Your task to perform on an android device: see sites visited before in the chrome app Image 0: 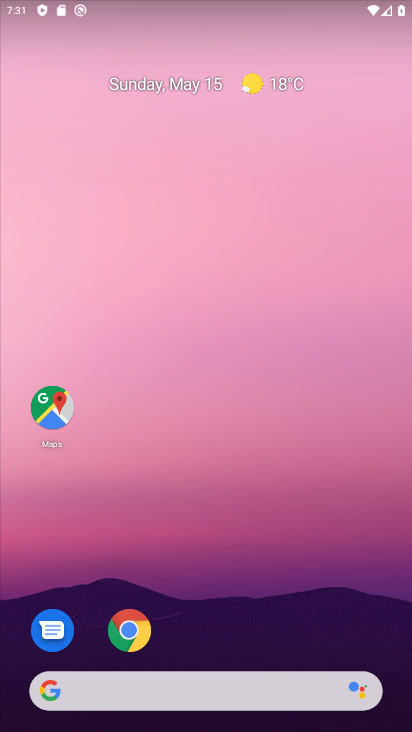
Step 0: drag from (202, 651) to (280, 72)
Your task to perform on an android device: see sites visited before in the chrome app Image 1: 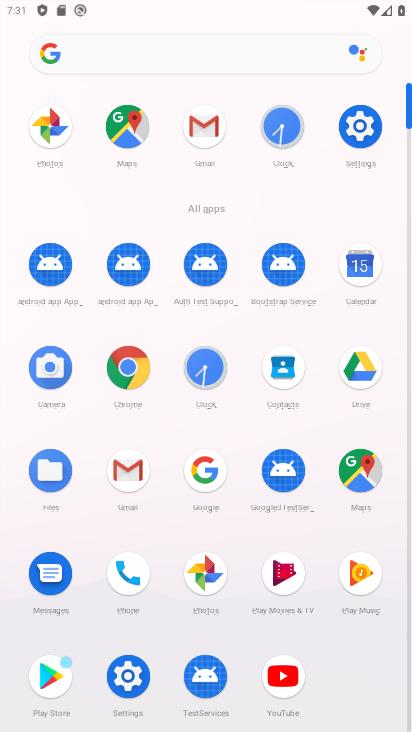
Step 1: click (118, 360)
Your task to perform on an android device: see sites visited before in the chrome app Image 2: 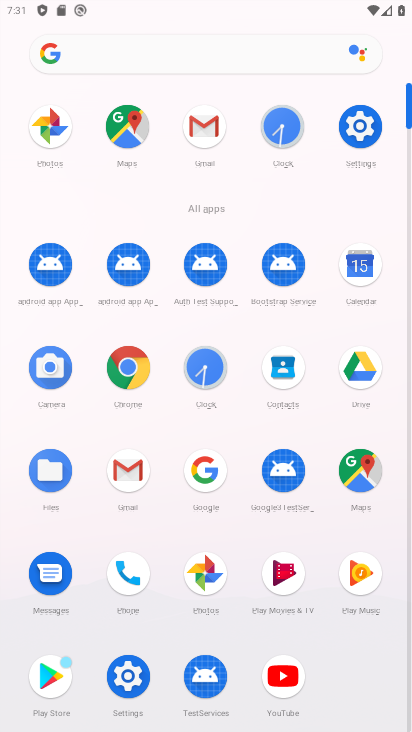
Step 2: click (118, 360)
Your task to perform on an android device: see sites visited before in the chrome app Image 3: 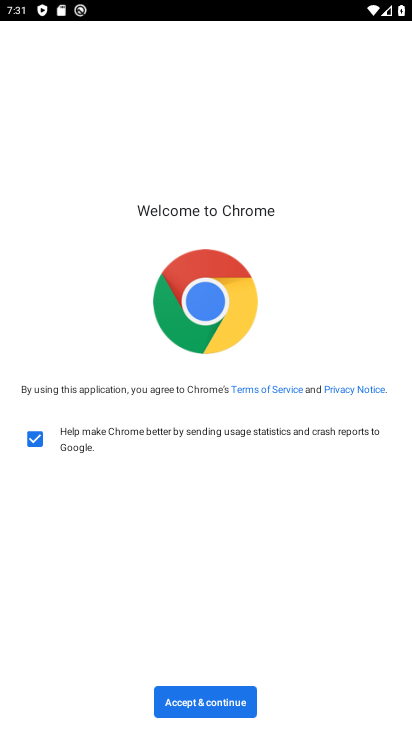
Step 3: click (201, 705)
Your task to perform on an android device: see sites visited before in the chrome app Image 4: 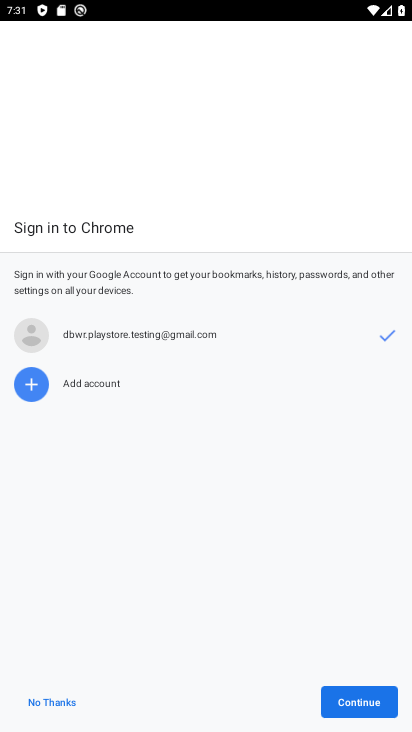
Step 4: click (364, 693)
Your task to perform on an android device: see sites visited before in the chrome app Image 5: 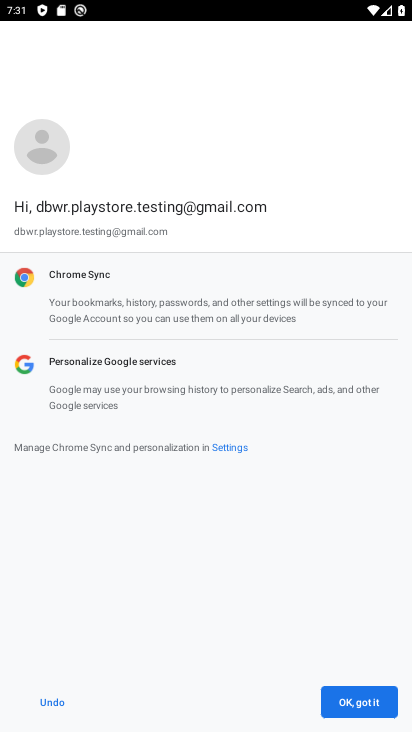
Step 5: click (363, 693)
Your task to perform on an android device: see sites visited before in the chrome app Image 6: 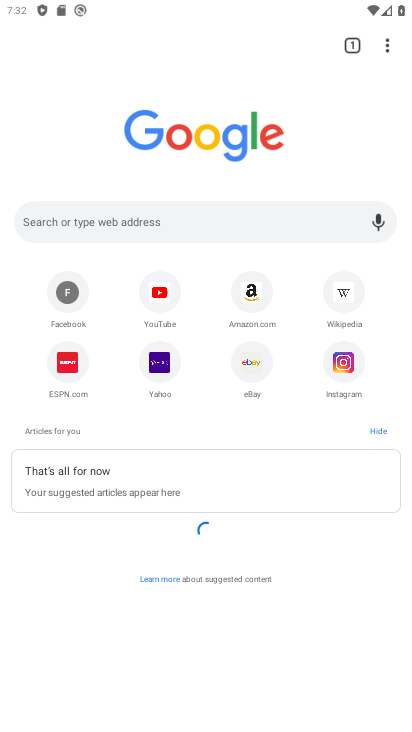
Step 6: click (385, 55)
Your task to perform on an android device: see sites visited before in the chrome app Image 7: 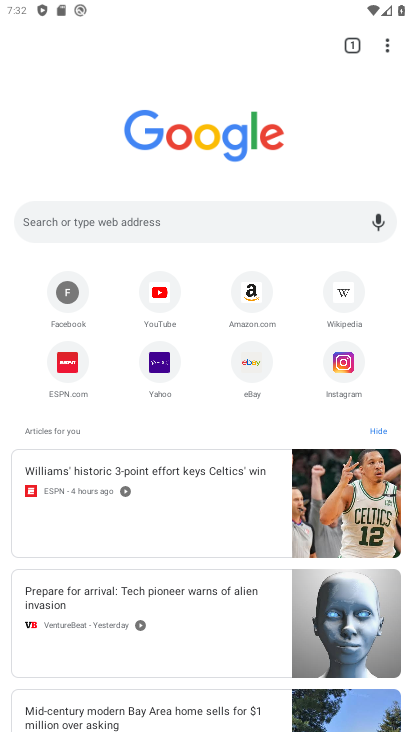
Step 7: task complete